Your task to perform on an android device: change your default location settings in chrome Image 0: 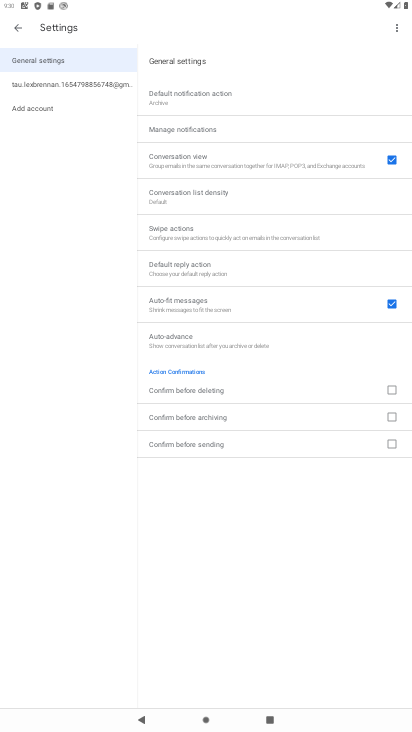
Step 0: click (308, 588)
Your task to perform on an android device: change your default location settings in chrome Image 1: 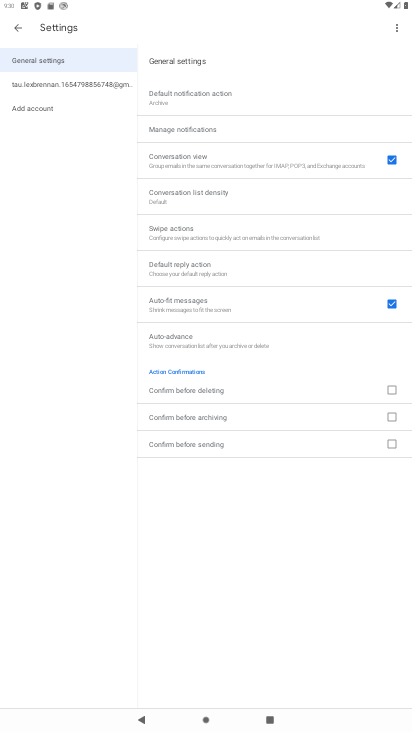
Step 1: click (308, 588)
Your task to perform on an android device: change your default location settings in chrome Image 2: 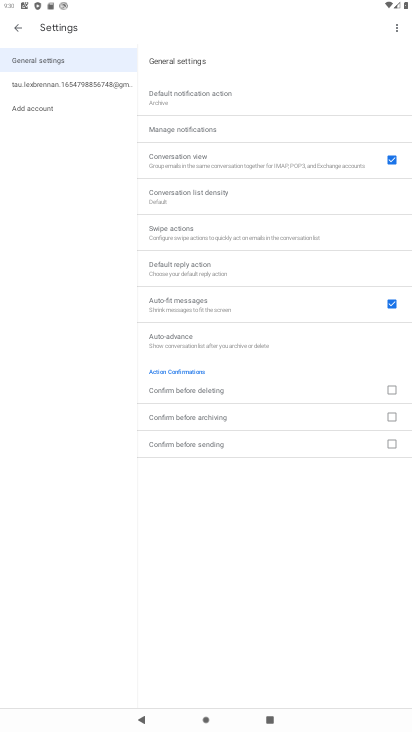
Step 2: task complete